Your task to perform on an android device: Open display settings Image 0: 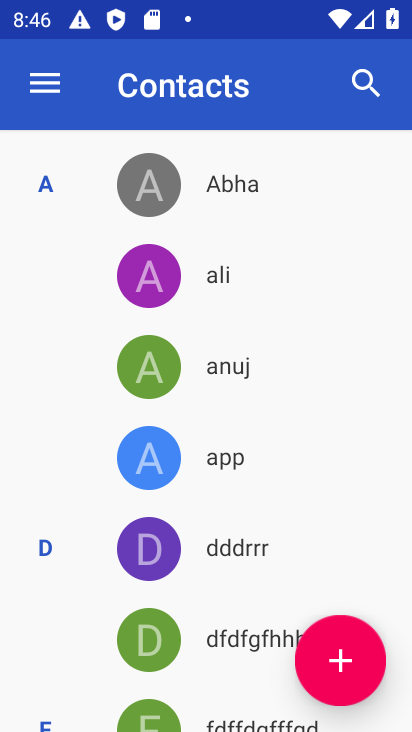
Step 0: press home button
Your task to perform on an android device: Open display settings Image 1: 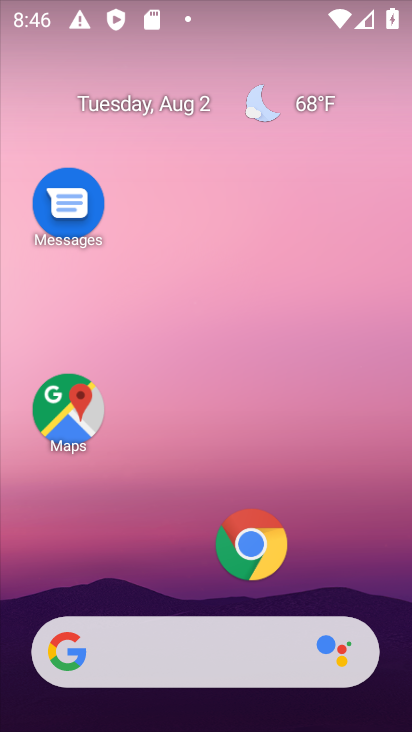
Step 1: drag from (174, 609) to (169, 228)
Your task to perform on an android device: Open display settings Image 2: 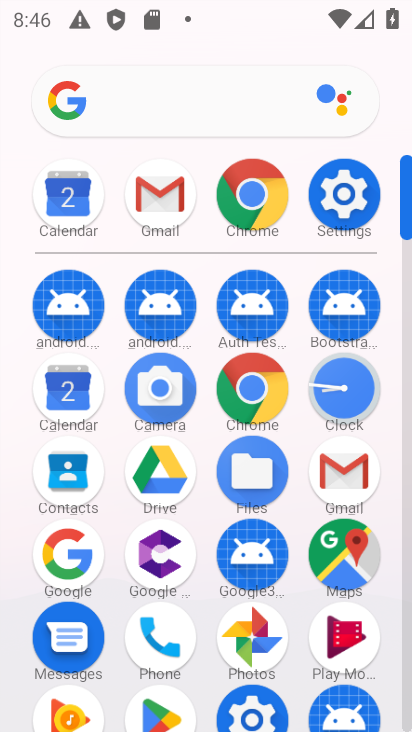
Step 2: click (336, 201)
Your task to perform on an android device: Open display settings Image 3: 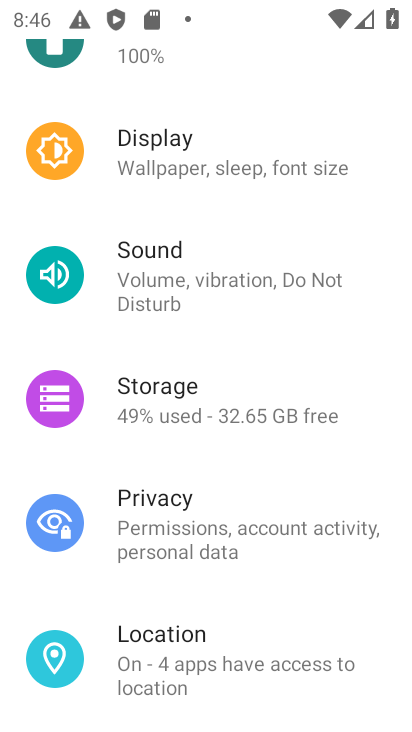
Step 3: click (155, 139)
Your task to perform on an android device: Open display settings Image 4: 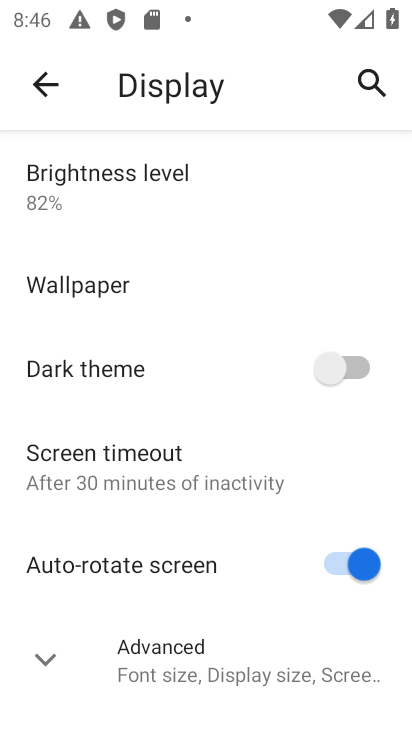
Step 4: drag from (84, 632) to (103, 194)
Your task to perform on an android device: Open display settings Image 5: 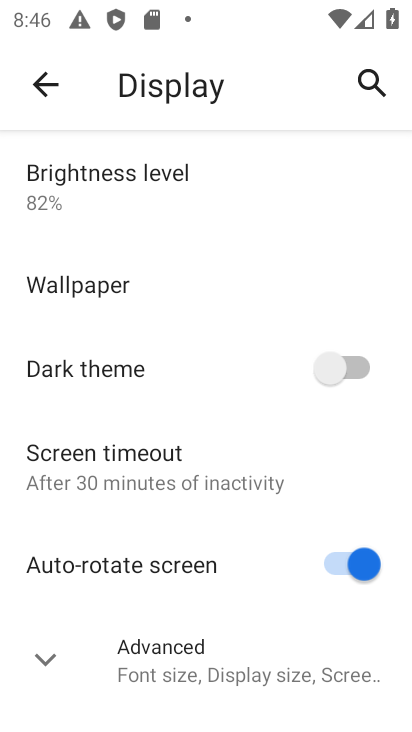
Step 5: click (155, 665)
Your task to perform on an android device: Open display settings Image 6: 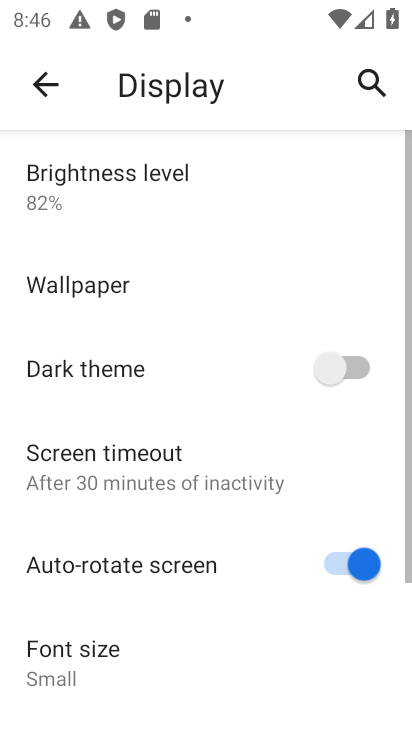
Step 6: task complete